Your task to perform on an android device: set default search engine in the chrome app Image 0: 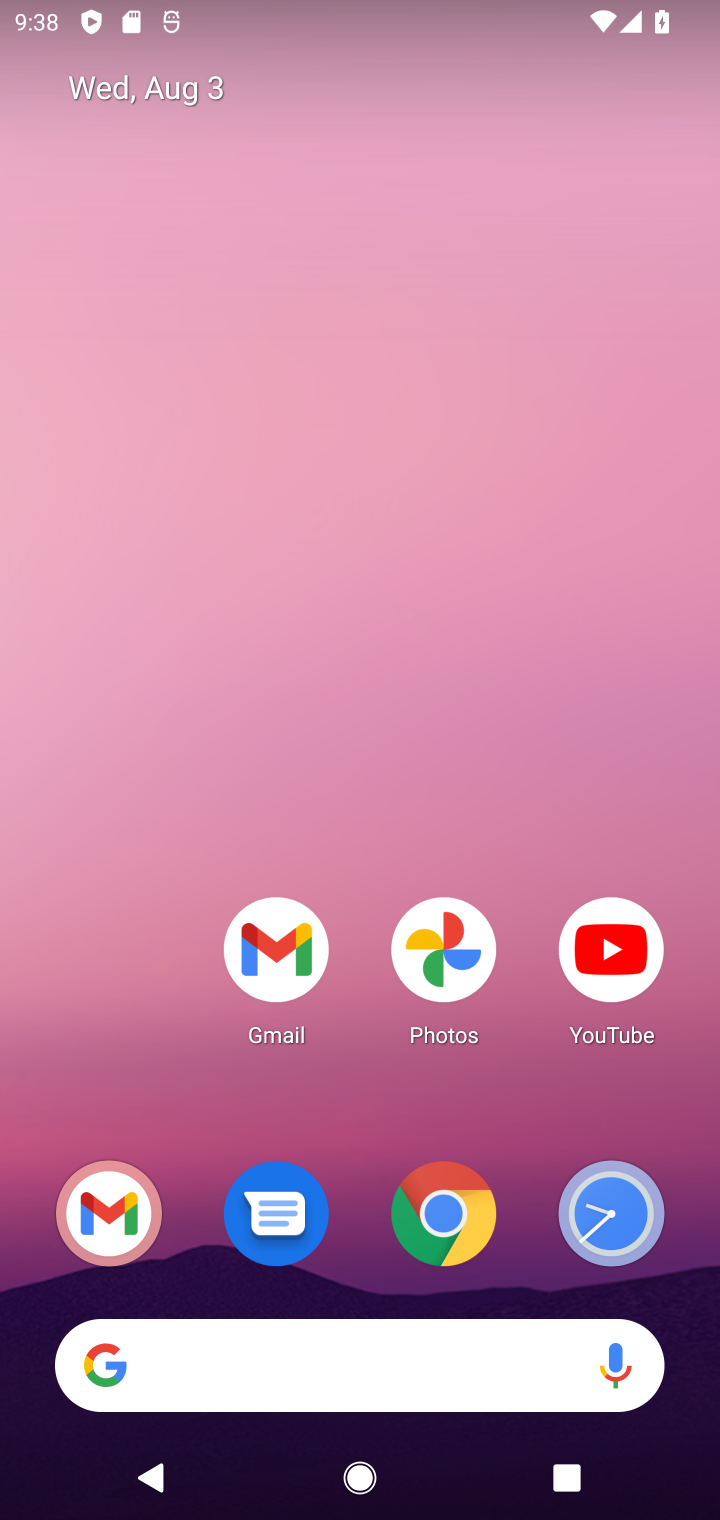
Step 0: click (442, 1188)
Your task to perform on an android device: set default search engine in the chrome app Image 1: 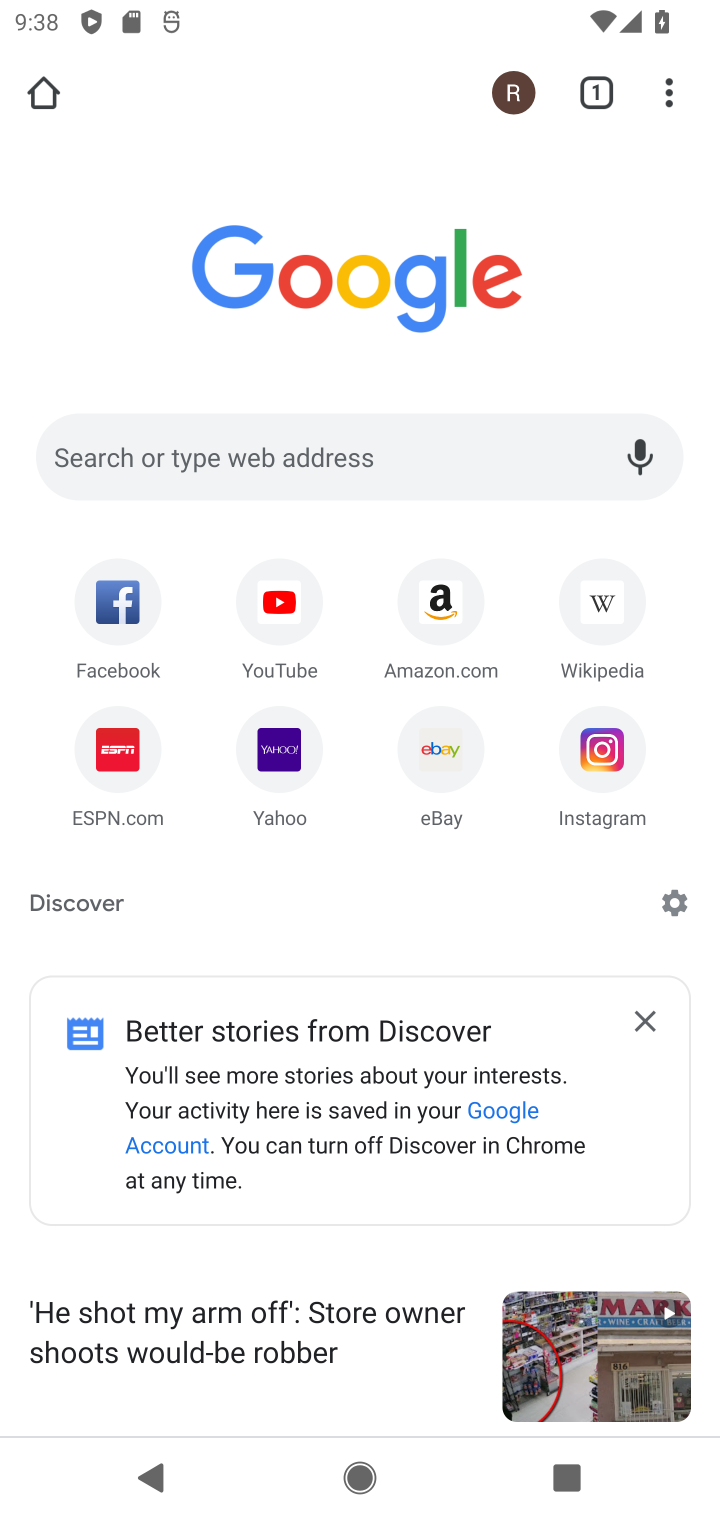
Step 1: click (668, 101)
Your task to perform on an android device: set default search engine in the chrome app Image 2: 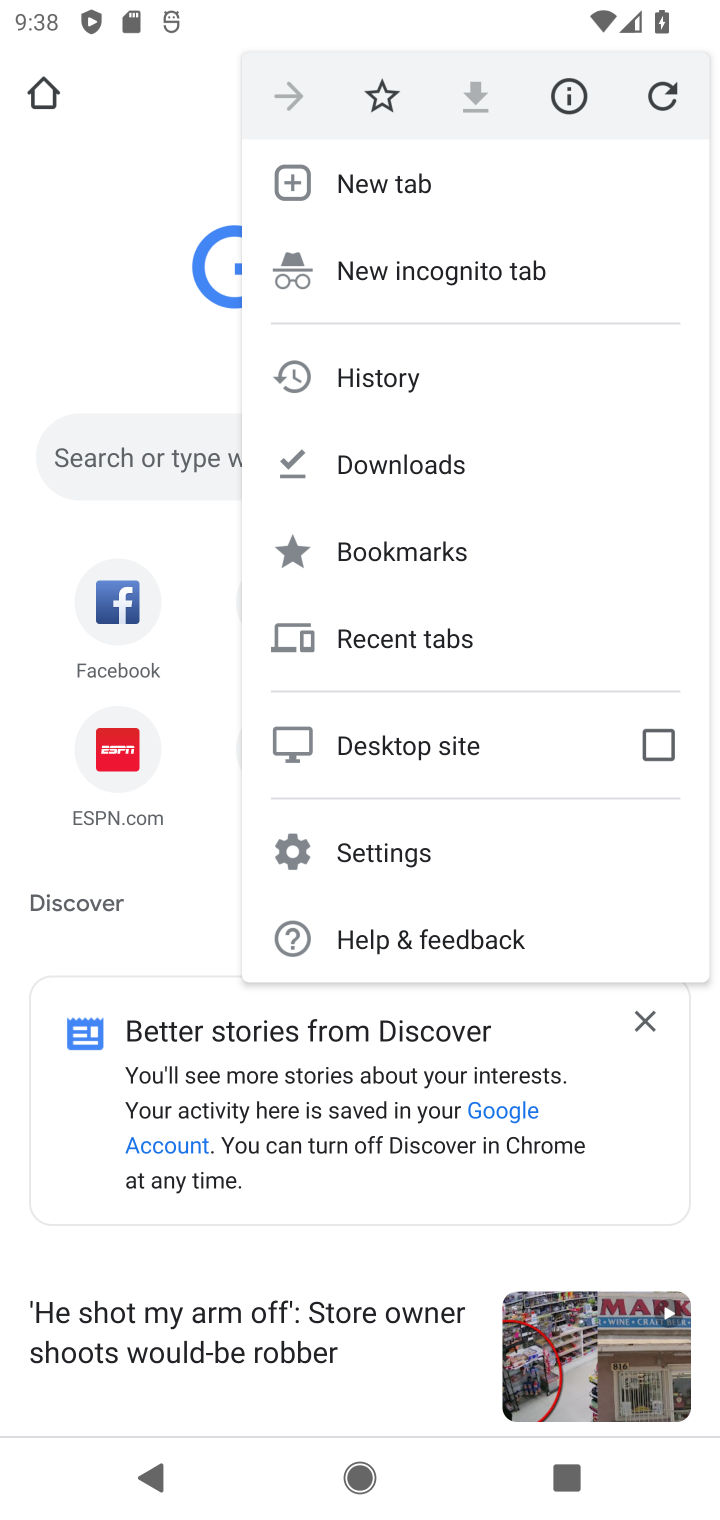
Step 2: click (339, 840)
Your task to perform on an android device: set default search engine in the chrome app Image 3: 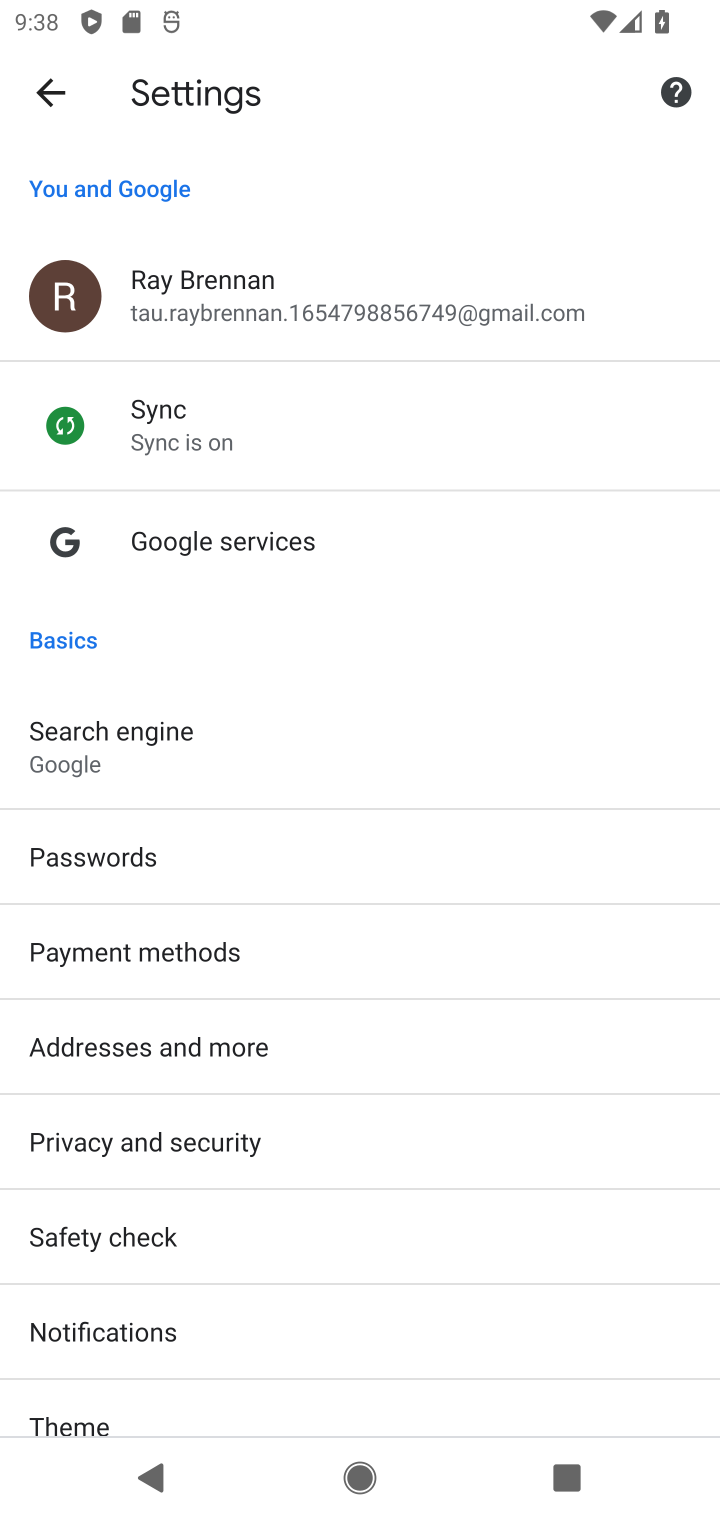
Step 3: click (144, 768)
Your task to perform on an android device: set default search engine in the chrome app Image 4: 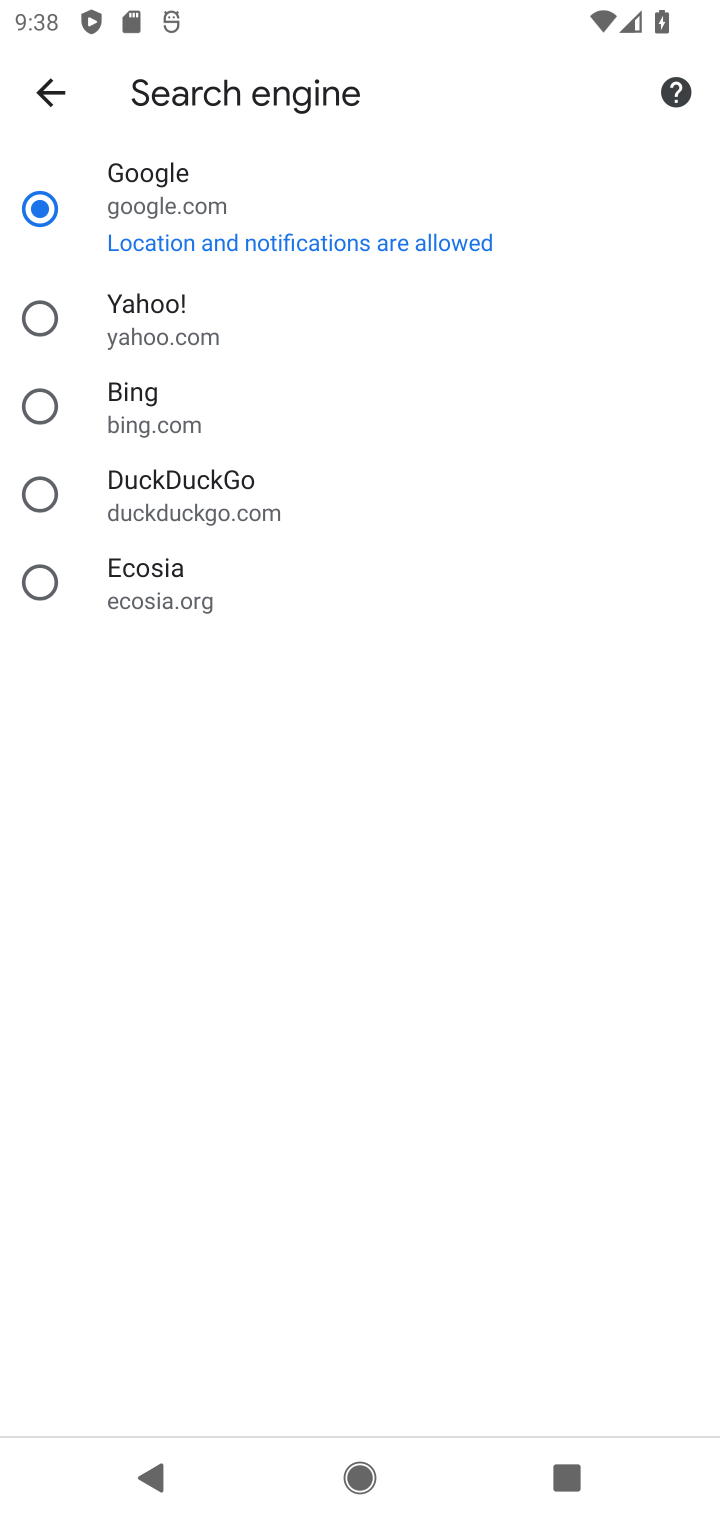
Step 4: click (117, 305)
Your task to perform on an android device: set default search engine in the chrome app Image 5: 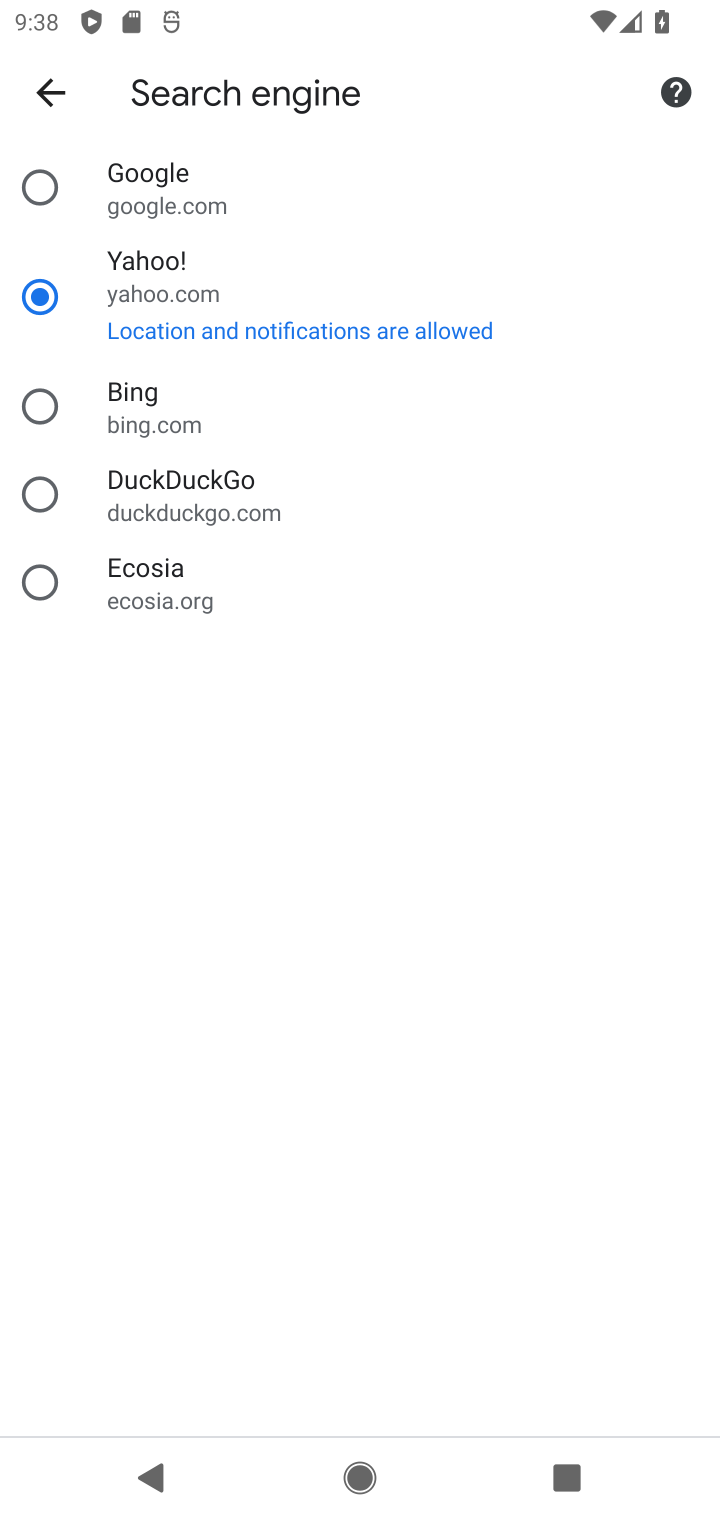
Step 5: task complete